Your task to perform on an android device: Check the news Image 0: 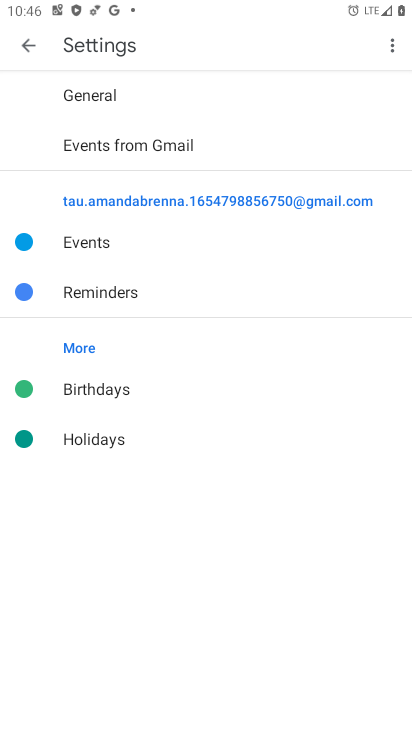
Step 0: press home button
Your task to perform on an android device: Check the news Image 1: 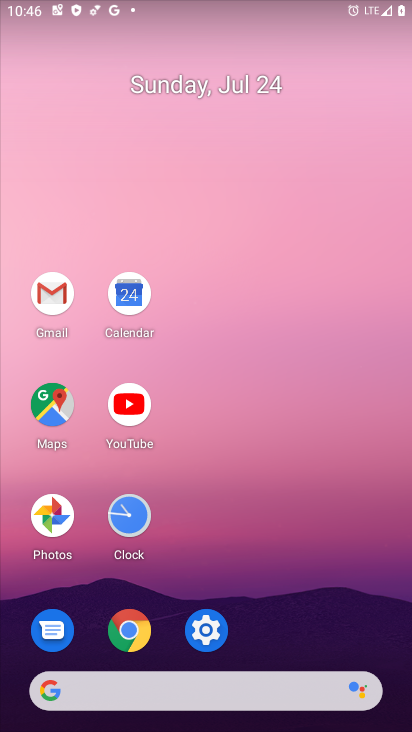
Step 1: task complete